Your task to perform on an android device: open a new tab in the chrome app Image 0: 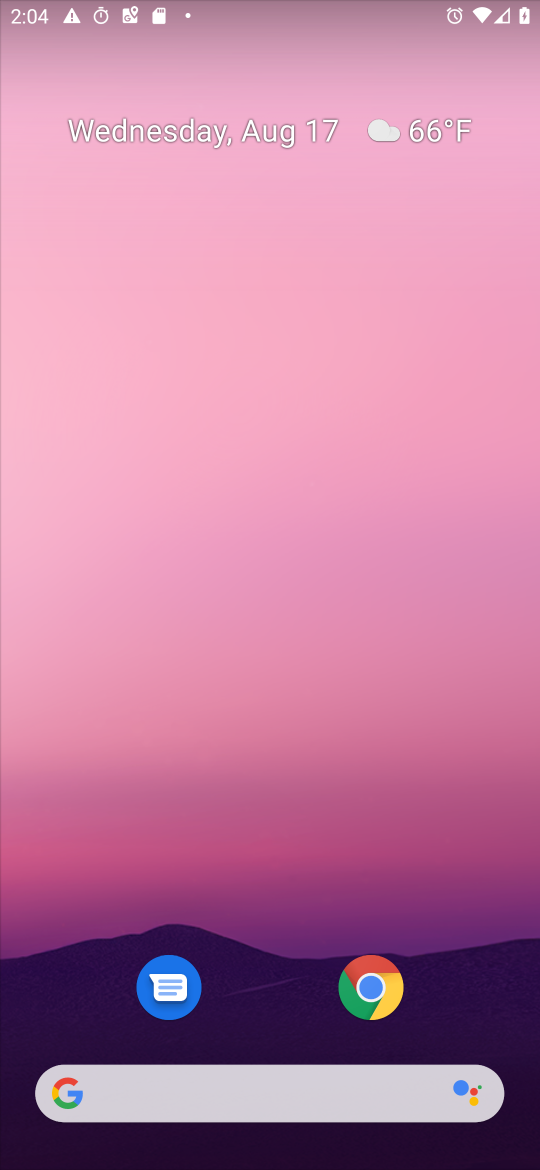
Step 0: click (343, 987)
Your task to perform on an android device: open a new tab in the chrome app Image 1: 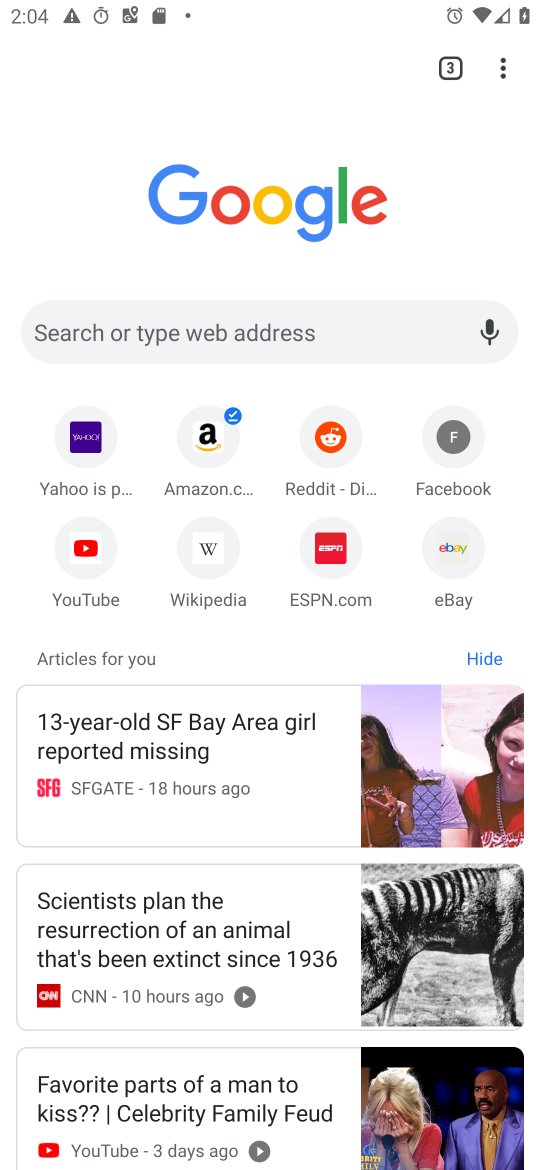
Step 1: press home button
Your task to perform on an android device: open a new tab in the chrome app Image 2: 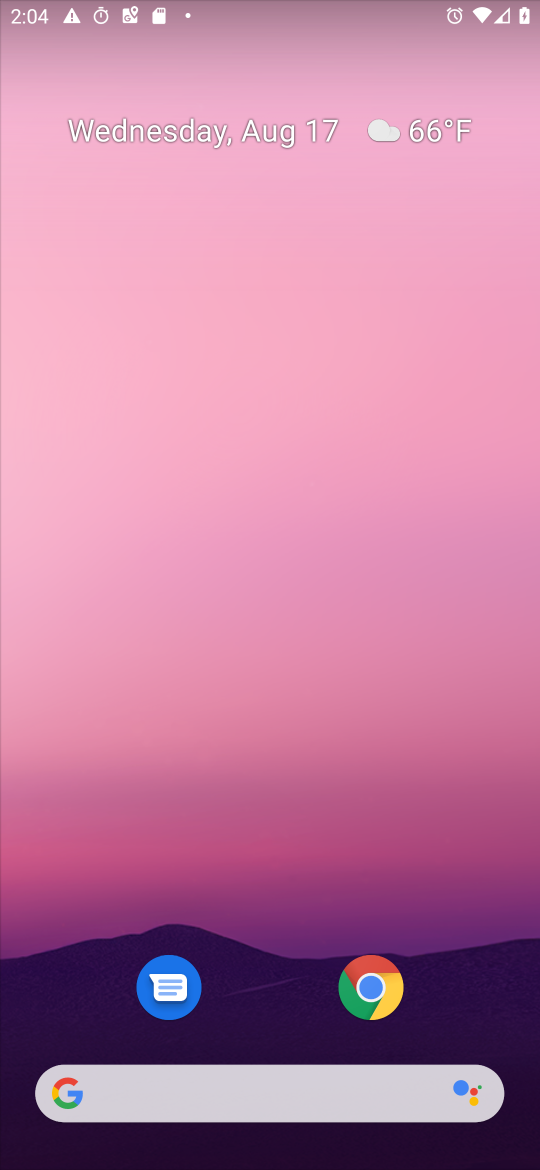
Step 2: click (356, 988)
Your task to perform on an android device: open a new tab in the chrome app Image 3: 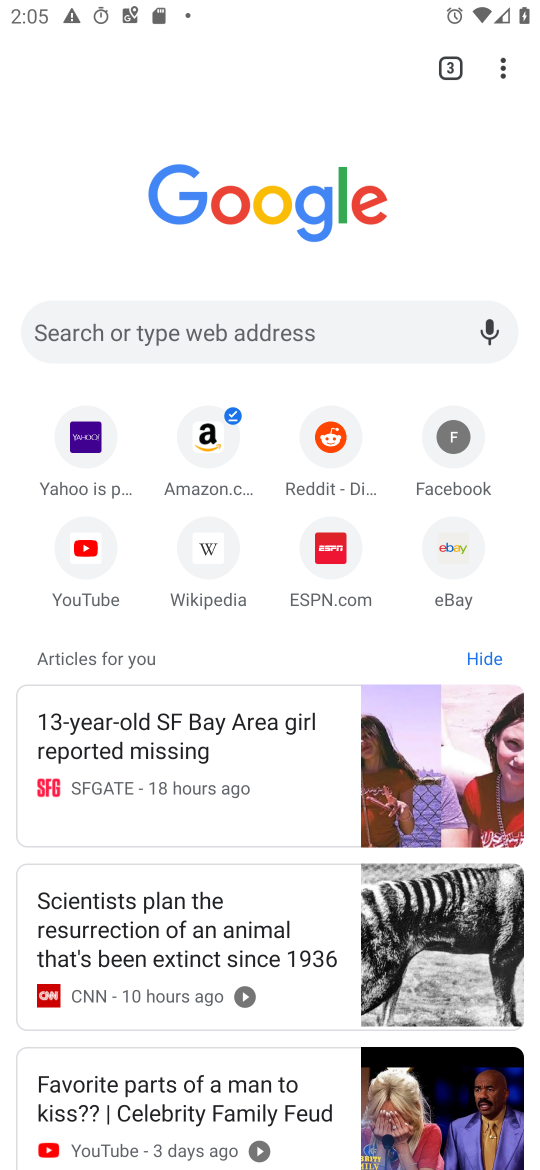
Step 3: click (505, 71)
Your task to perform on an android device: open a new tab in the chrome app Image 4: 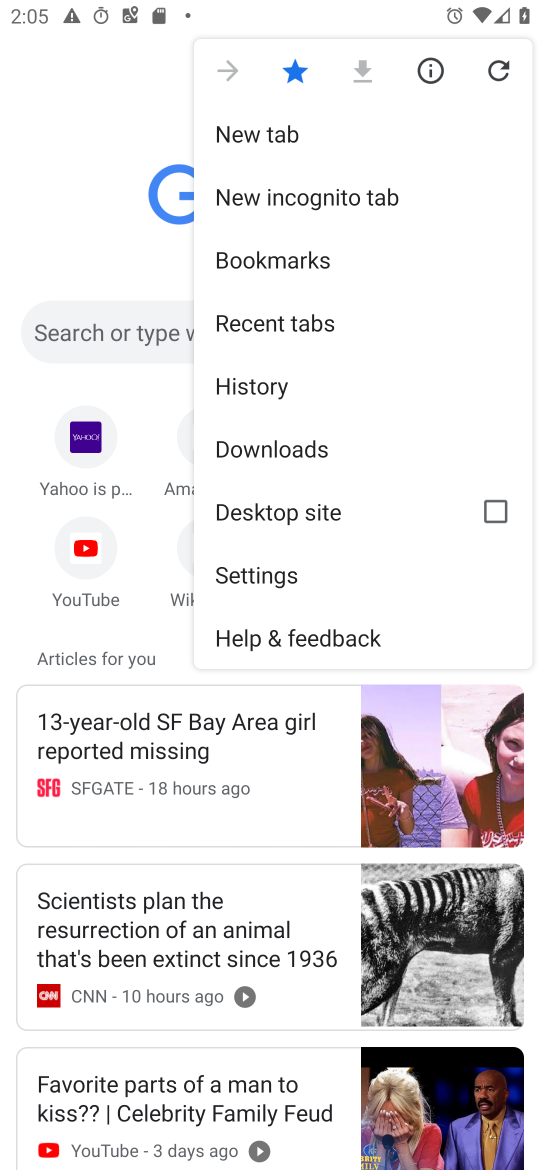
Step 4: click (263, 143)
Your task to perform on an android device: open a new tab in the chrome app Image 5: 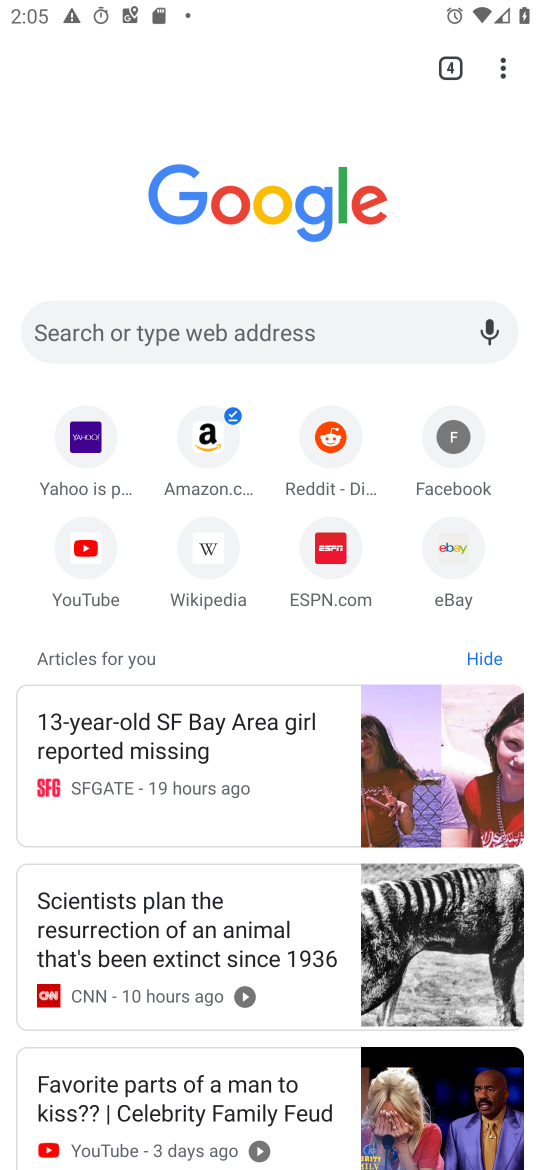
Step 5: task complete